Your task to perform on an android device: turn notification dots on Image 0: 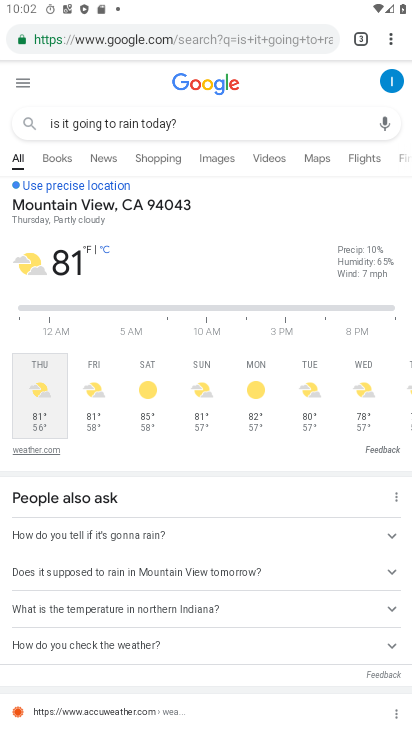
Step 0: press back button
Your task to perform on an android device: turn notification dots on Image 1: 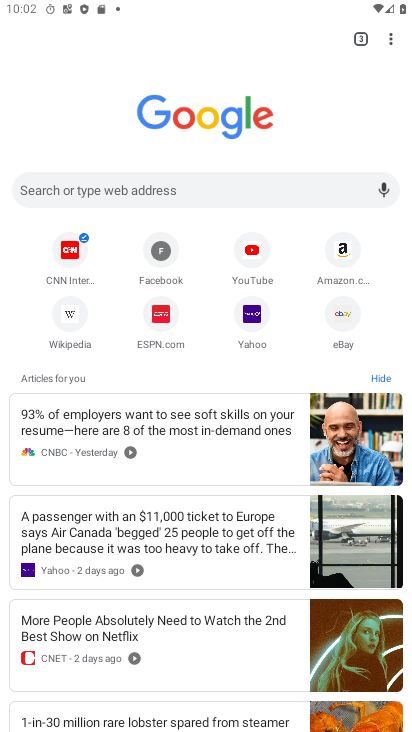
Step 1: press home button
Your task to perform on an android device: turn notification dots on Image 2: 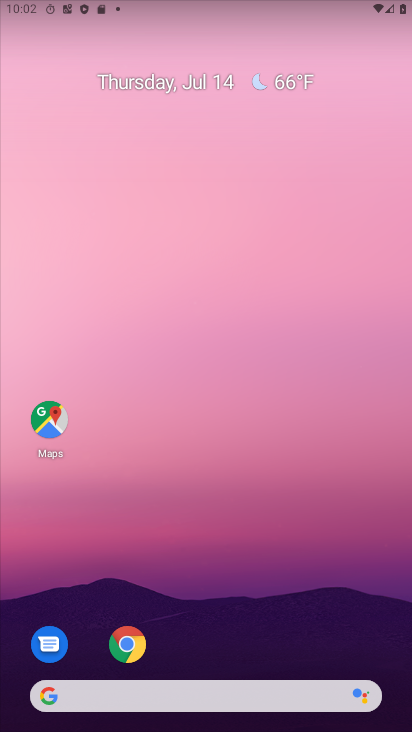
Step 2: click (358, 193)
Your task to perform on an android device: turn notification dots on Image 3: 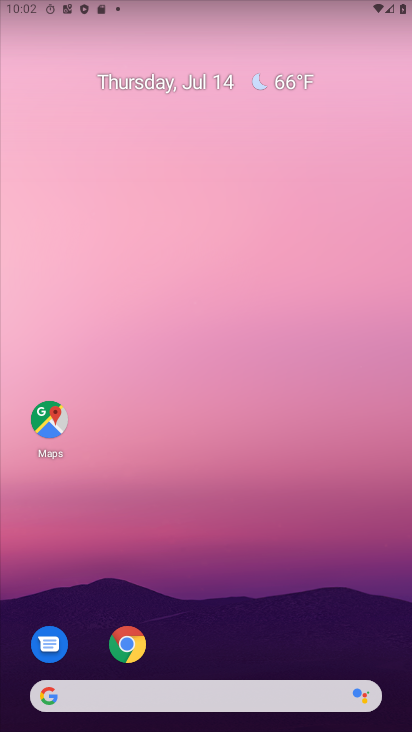
Step 3: drag from (303, 587) to (241, 230)
Your task to perform on an android device: turn notification dots on Image 4: 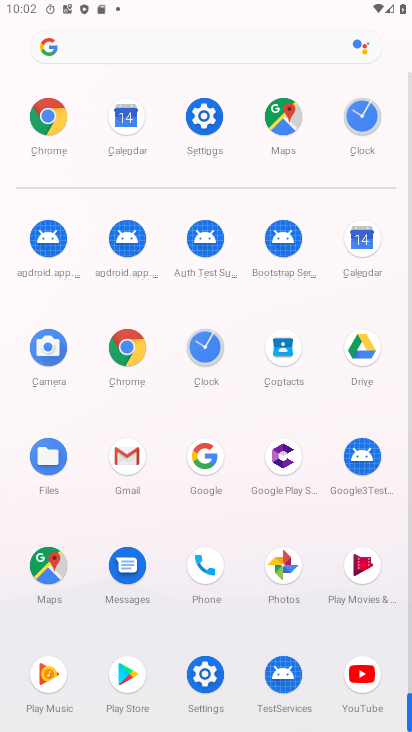
Step 4: click (204, 687)
Your task to perform on an android device: turn notification dots on Image 5: 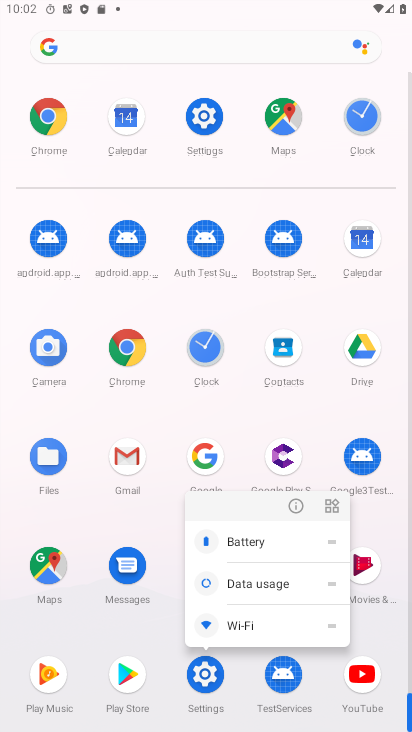
Step 5: click (206, 683)
Your task to perform on an android device: turn notification dots on Image 6: 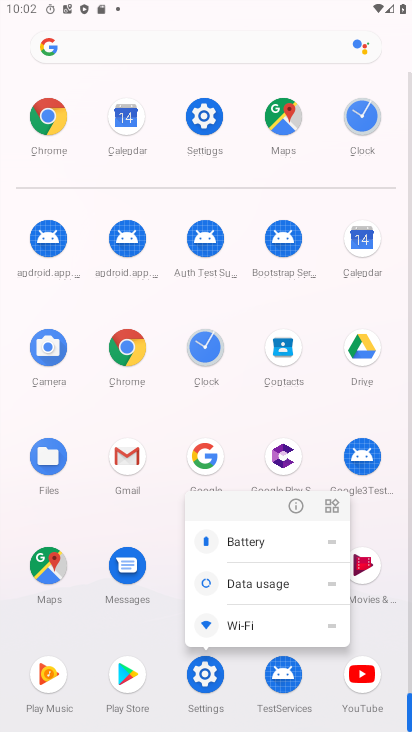
Step 6: click (206, 683)
Your task to perform on an android device: turn notification dots on Image 7: 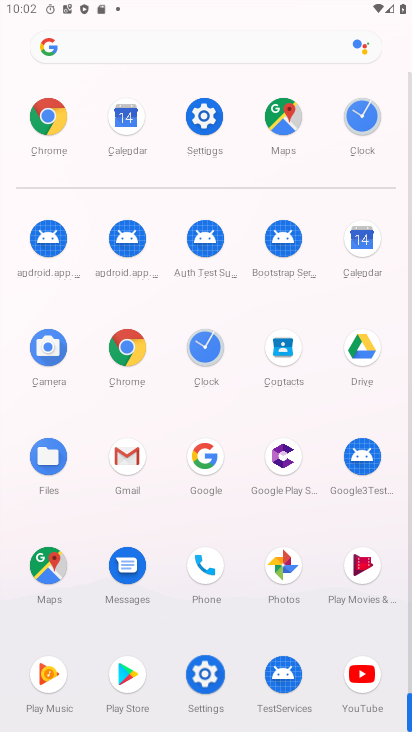
Step 7: click (208, 678)
Your task to perform on an android device: turn notification dots on Image 8: 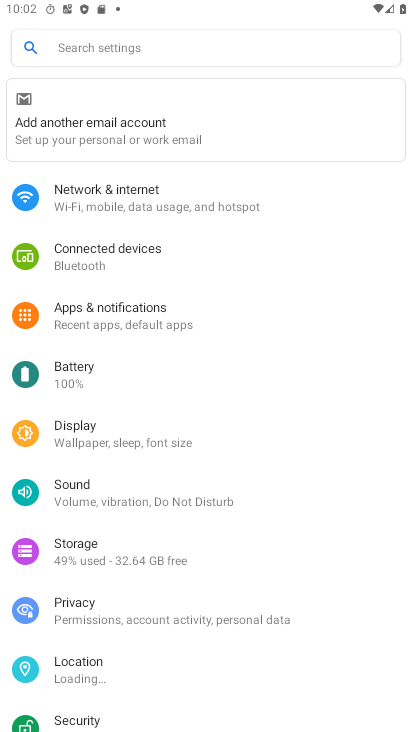
Step 8: click (130, 323)
Your task to perform on an android device: turn notification dots on Image 9: 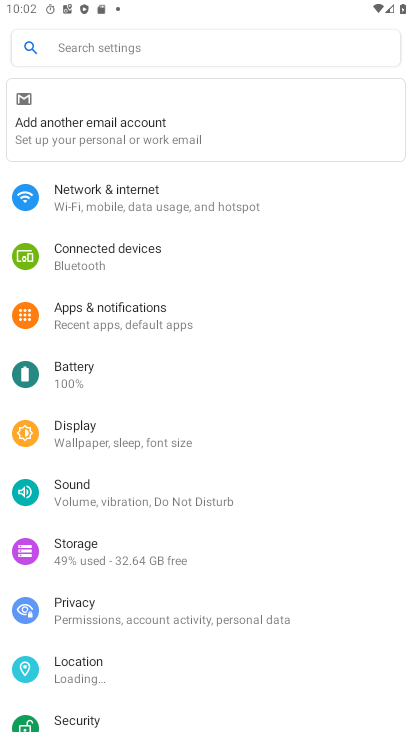
Step 9: click (127, 322)
Your task to perform on an android device: turn notification dots on Image 10: 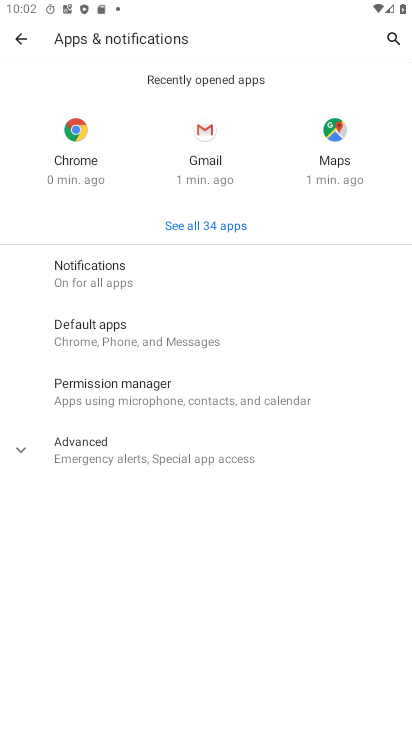
Step 10: click (92, 273)
Your task to perform on an android device: turn notification dots on Image 11: 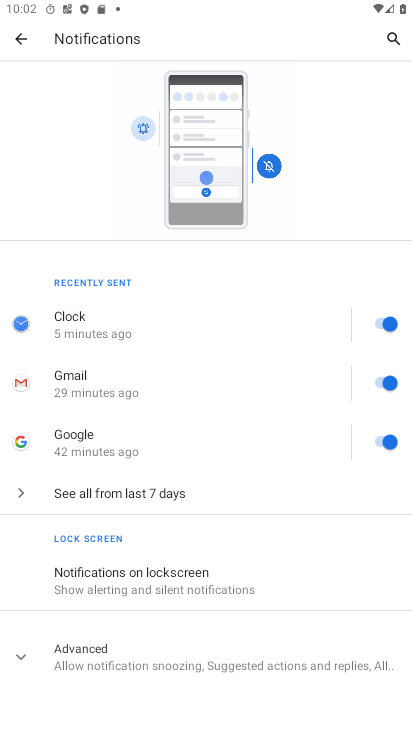
Step 11: drag from (203, 625) to (193, 199)
Your task to perform on an android device: turn notification dots on Image 12: 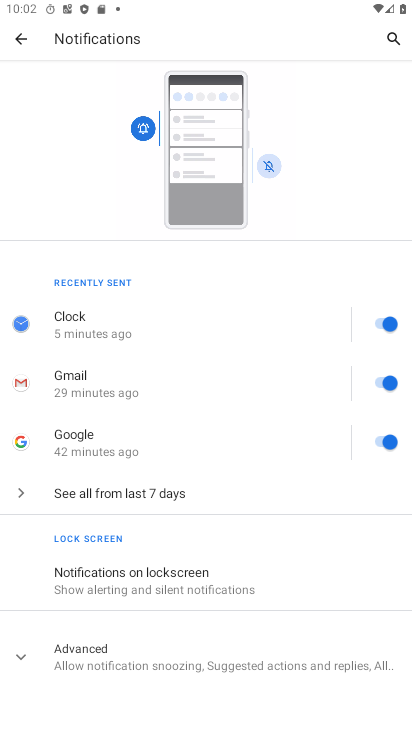
Step 12: click (102, 644)
Your task to perform on an android device: turn notification dots on Image 13: 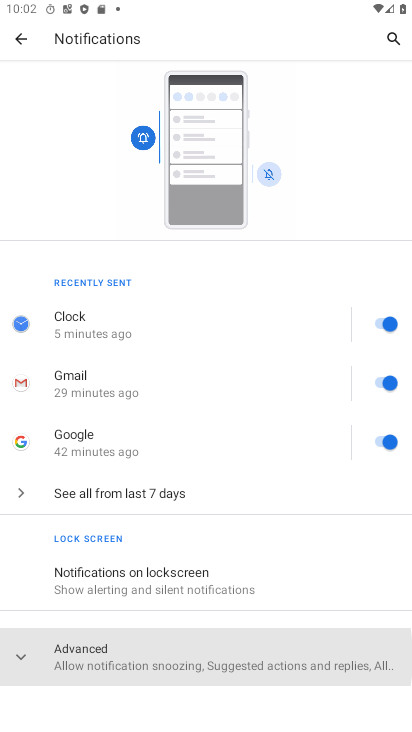
Step 13: click (101, 641)
Your task to perform on an android device: turn notification dots on Image 14: 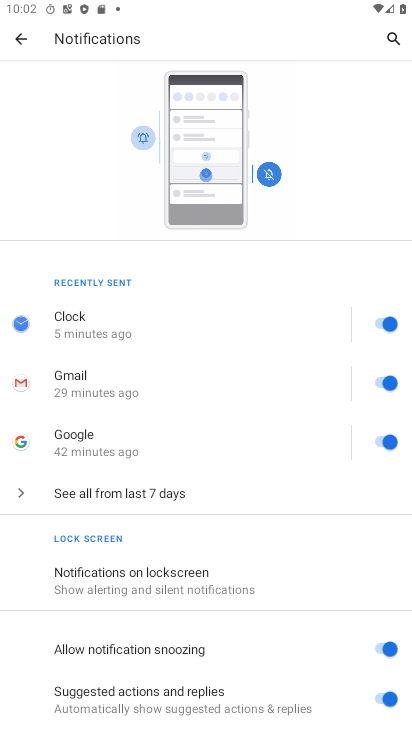
Step 14: drag from (203, 677) to (209, 351)
Your task to perform on an android device: turn notification dots on Image 15: 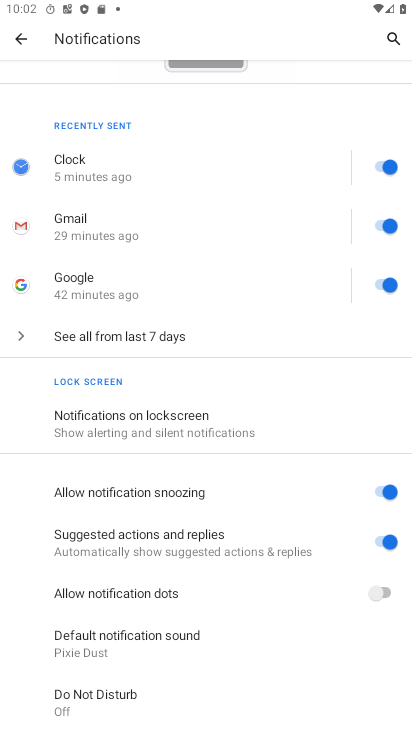
Step 15: click (381, 601)
Your task to perform on an android device: turn notification dots on Image 16: 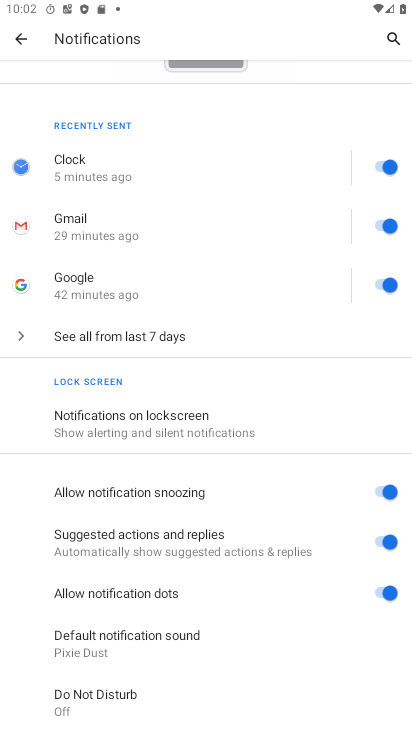
Step 16: task complete